Your task to perform on an android device: Show me popular games on the Play Store Image 0: 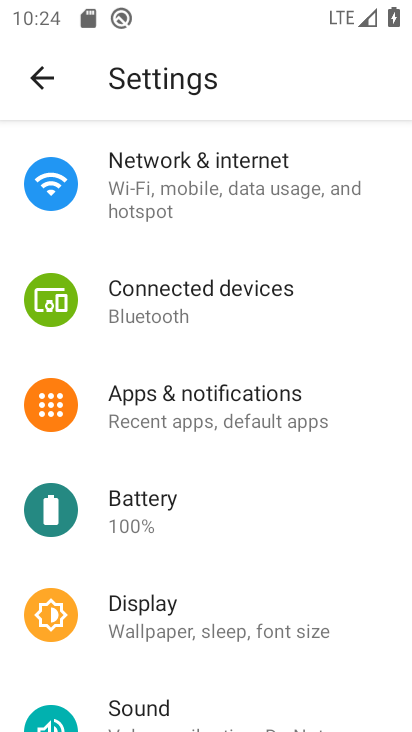
Step 0: press home button
Your task to perform on an android device: Show me popular games on the Play Store Image 1: 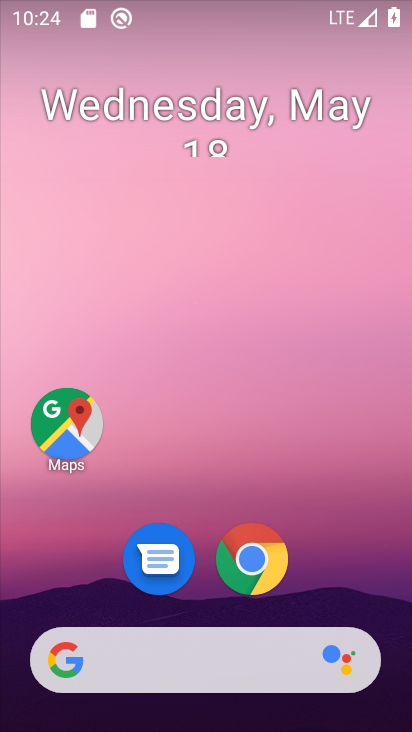
Step 1: drag from (207, 601) to (289, 5)
Your task to perform on an android device: Show me popular games on the Play Store Image 2: 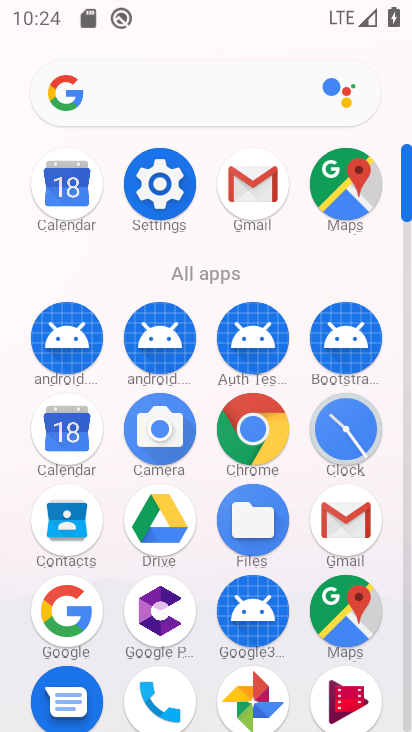
Step 2: drag from (201, 561) to (249, 167)
Your task to perform on an android device: Show me popular games on the Play Store Image 3: 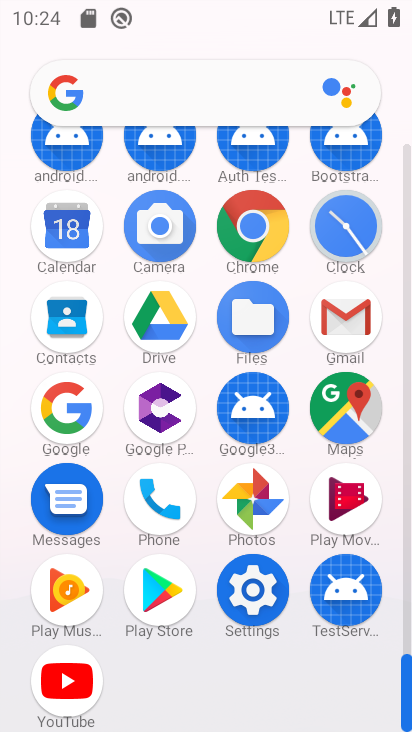
Step 3: click (164, 608)
Your task to perform on an android device: Show me popular games on the Play Store Image 4: 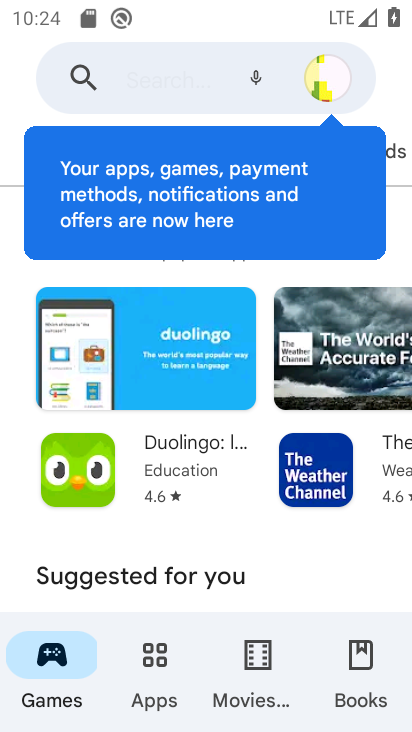
Step 4: click (154, 675)
Your task to perform on an android device: Show me popular games on the Play Store Image 5: 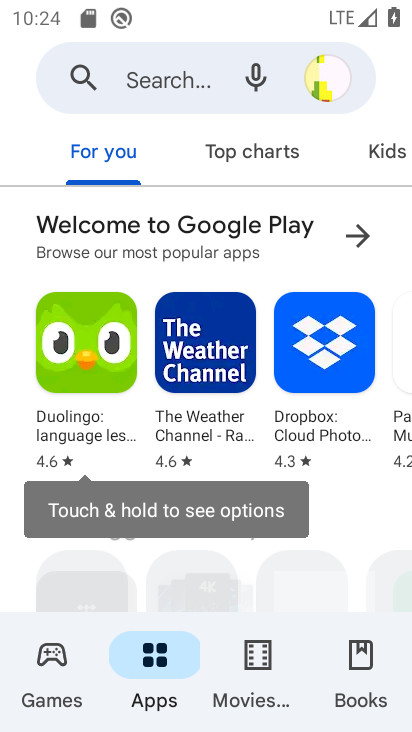
Step 5: click (56, 674)
Your task to perform on an android device: Show me popular games on the Play Store Image 6: 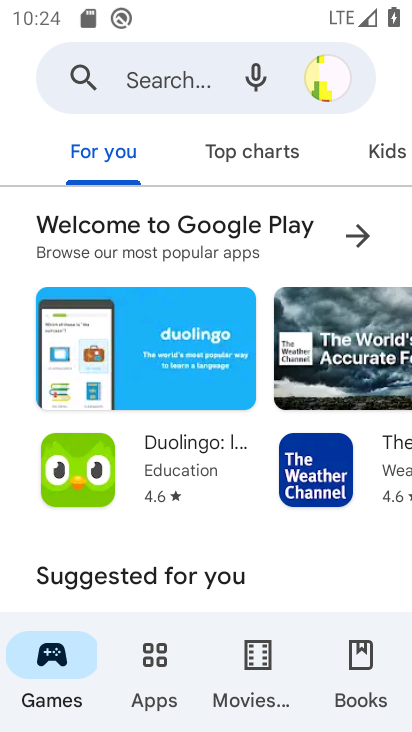
Step 6: click (228, 155)
Your task to perform on an android device: Show me popular games on the Play Store Image 7: 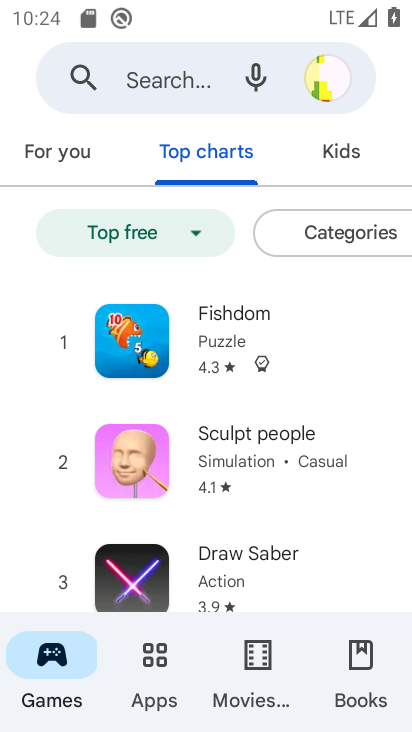
Step 7: task complete